Your task to perform on an android device: toggle wifi Image 0: 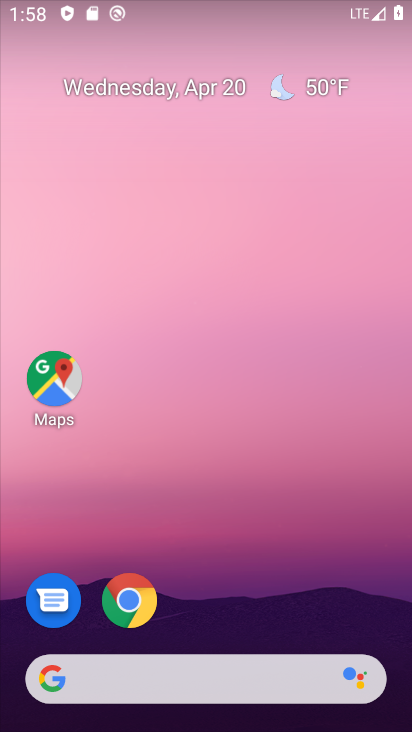
Step 0: drag from (316, 627) to (253, 56)
Your task to perform on an android device: toggle wifi Image 1: 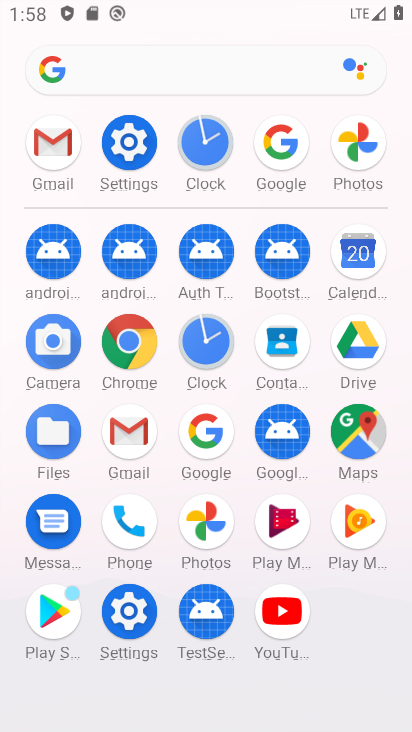
Step 1: drag from (285, 604) to (275, 208)
Your task to perform on an android device: toggle wifi Image 2: 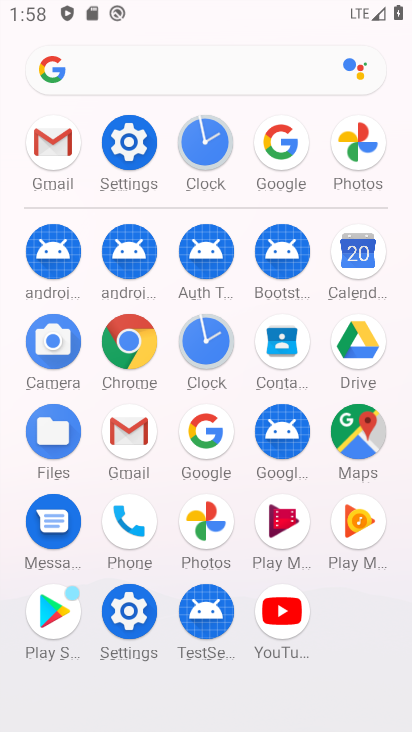
Step 2: click (139, 143)
Your task to perform on an android device: toggle wifi Image 3: 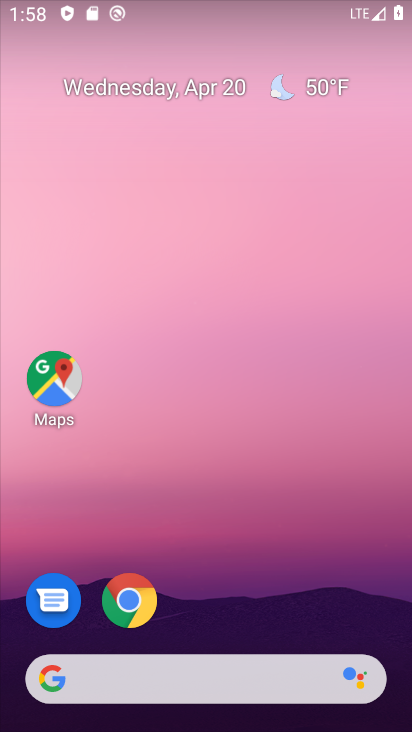
Step 3: drag from (205, 572) to (219, 141)
Your task to perform on an android device: toggle wifi Image 4: 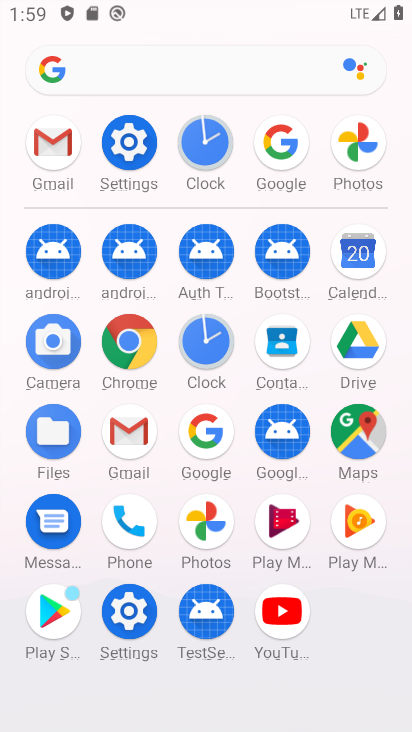
Step 4: click (131, 612)
Your task to perform on an android device: toggle wifi Image 5: 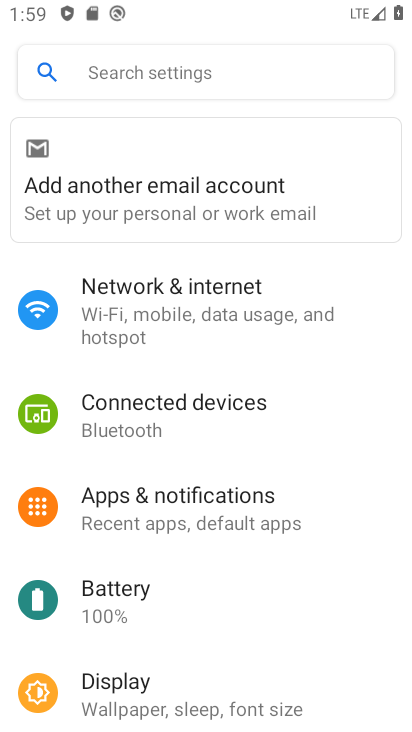
Step 5: click (201, 299)
Your task to perform on an android device: toggle wifi Image 6: 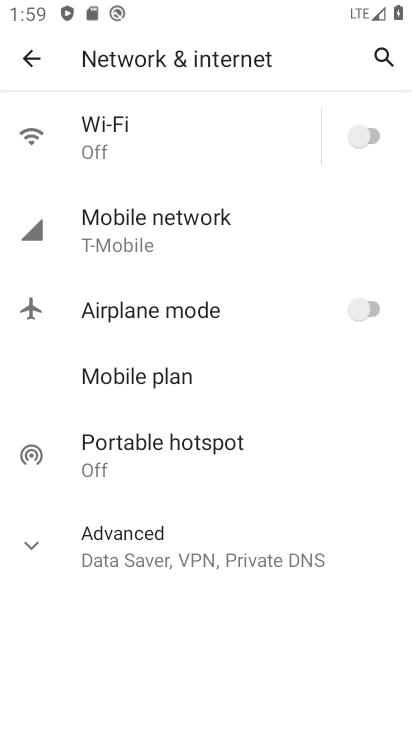
Step 6: click (361, 135)
Your task to perform on an android device: toggle wifi Image 7: 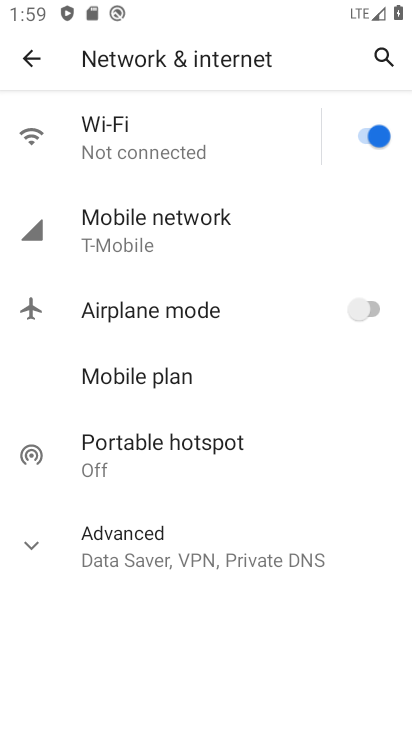
Step 7: task complete